Your task to perform on an android device: visit the assistant section in the google photos Image 0: 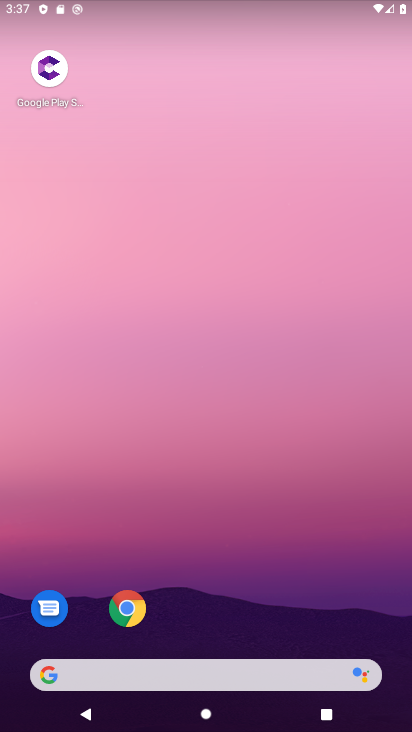
Step 0: drag from (255, 697) to (372, 11)
Your task to perform on an android device: visit the assistant section in the google photos Image 1: 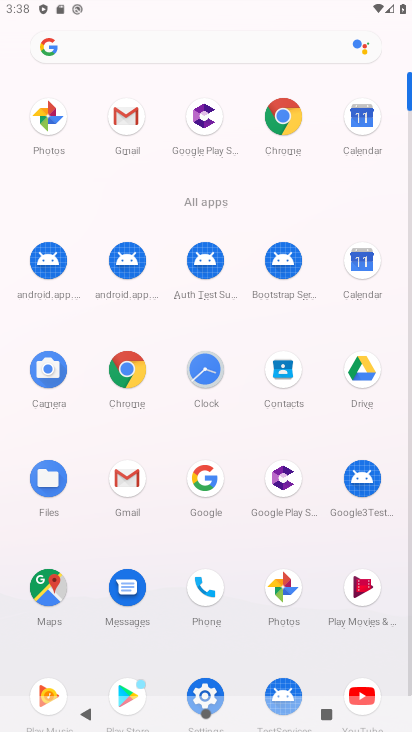
Step 1: drag from (185, 470) to (287, 25)
Your task to perform on an android device: visit the assistant section in the google photos Image 2: 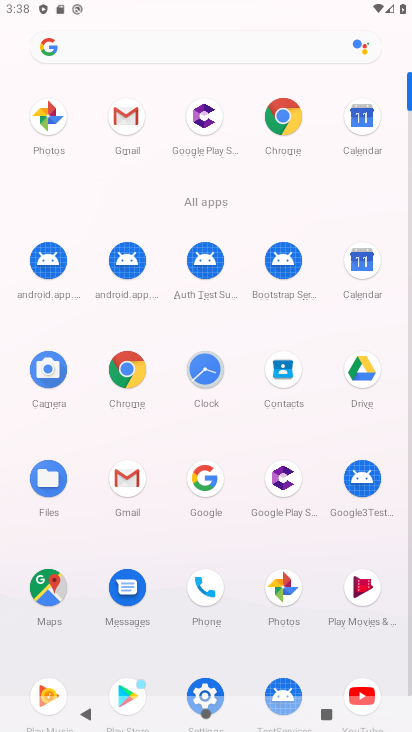
Step 2: click (56, 111)
Your task to perform on an android device: visit the assistant section in the google photos Image 3: 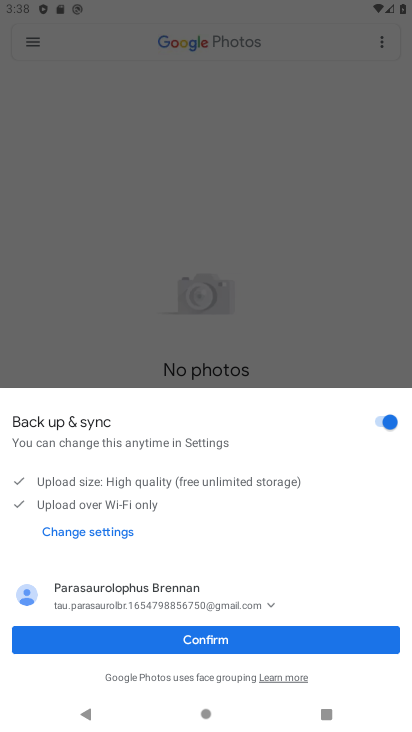
Step 3: click (256, 642)
Your task to perform on an android device: visit the assistant section in the google photos Image 4: 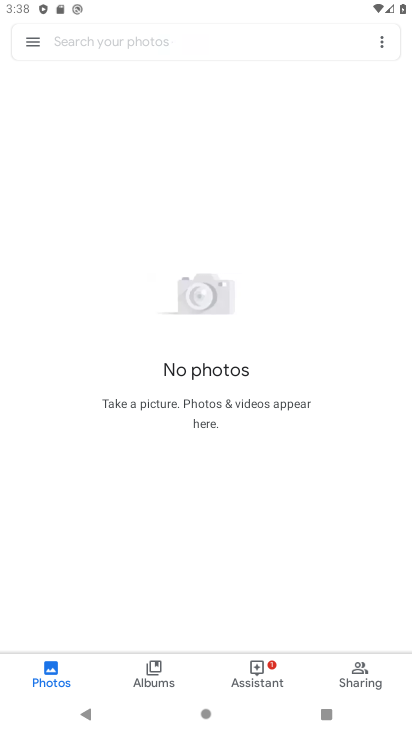
Step 4: click (263, 680)
Your task to perform on an android device: visit the assistant section in the google photos Image 5: 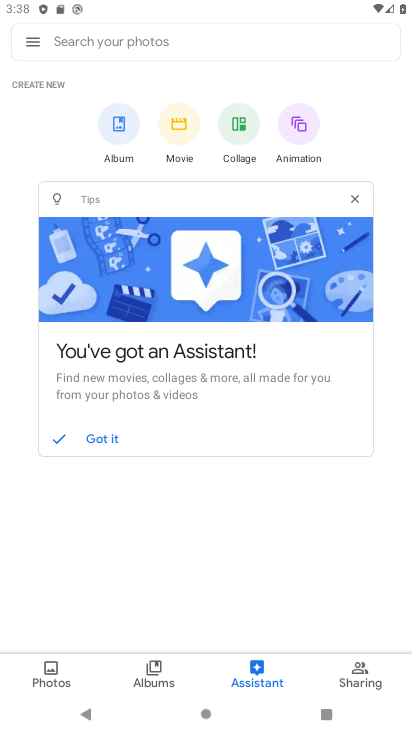
Step 5: task complete